Your task to perform on an android device: add a contact Image 0: 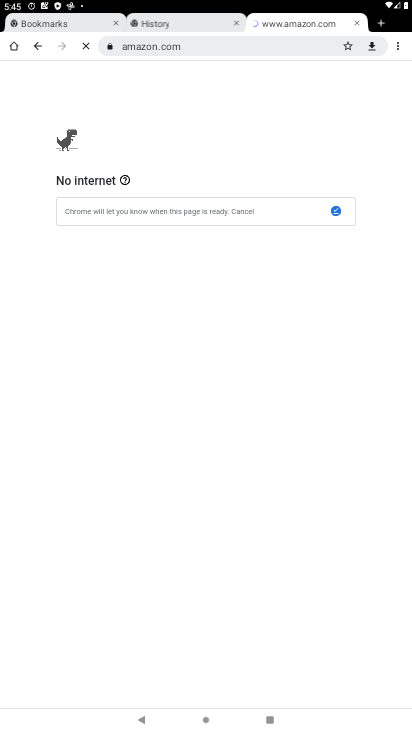
Step 0: press home button
Your task to perform on an android device: add a contact Image 1: 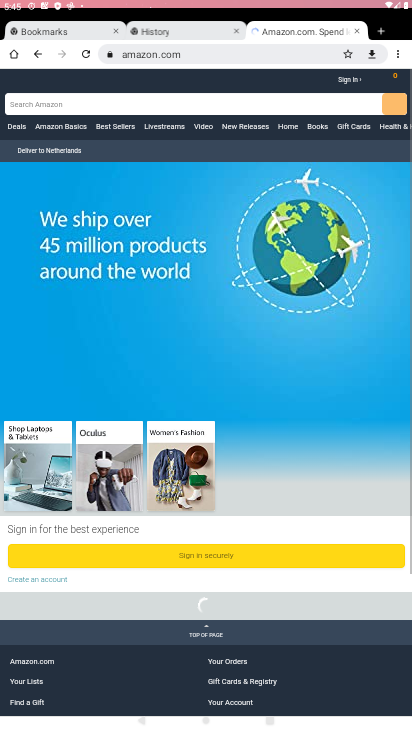
Step 1: drag from (351, 702) to (149, 104)
Your task to perform on an android device: add a contact Image 2: 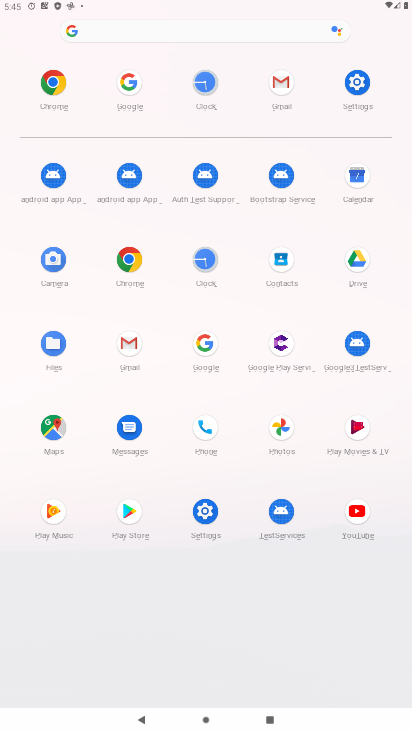
Step 2: click (285, 257)
Your task to perform on an android device: add a contact Image 3: 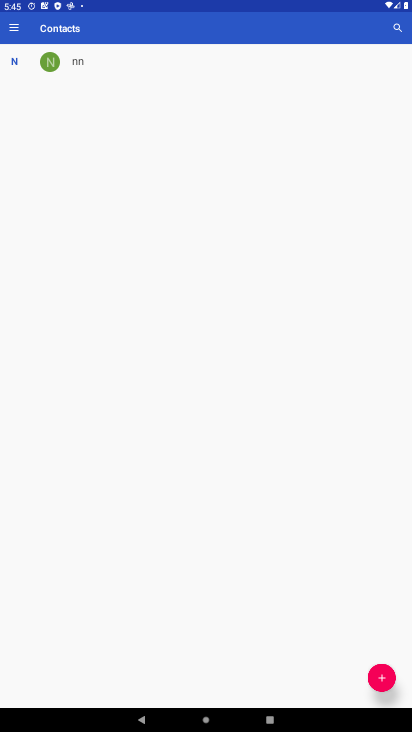
Step 3: click (384, 681)
Your task to perform on an android device: add a contact Image 4: 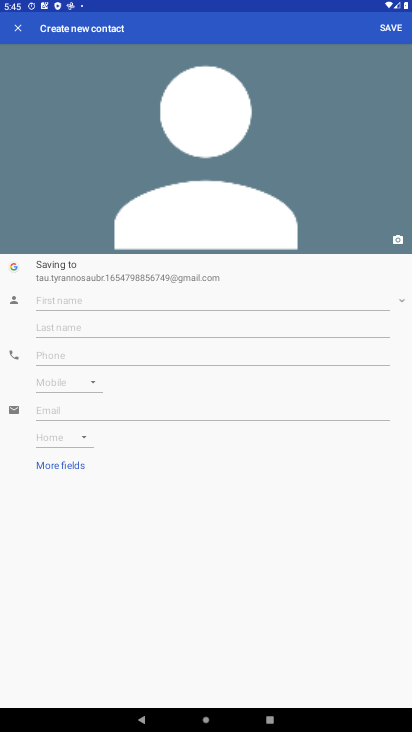
Step 4: type "ravish"
Your task to perform on an android device: add a contact Image 5: 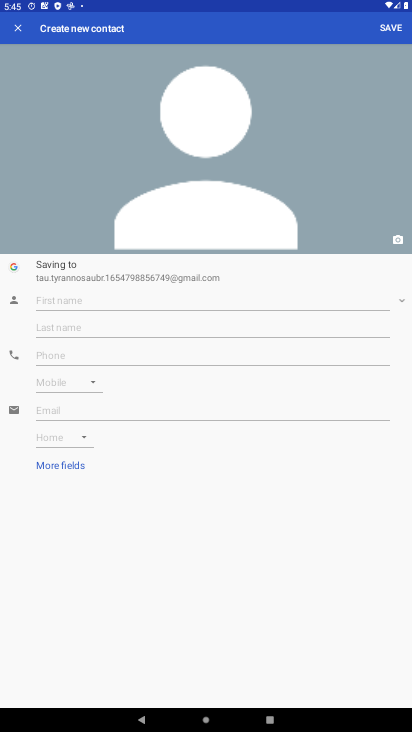
Step 5: click (387, 26)
Your task to perform on an android device: add a contact Image 6: 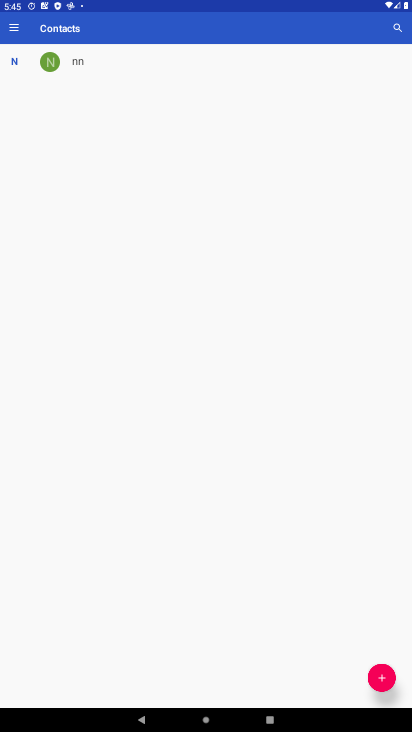
Step 6: task complete